Your task to perform on an android device: open a bookmark in the chrome app Image 0: 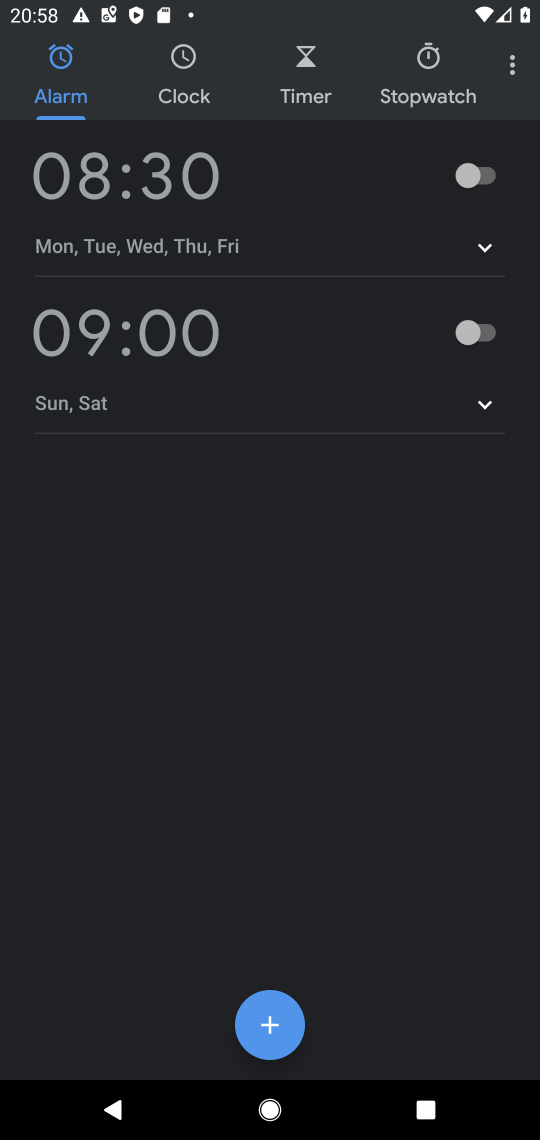
Step 0: press home button
Your task to perform on an android device: open a bookmark in the chrome app Image 1: 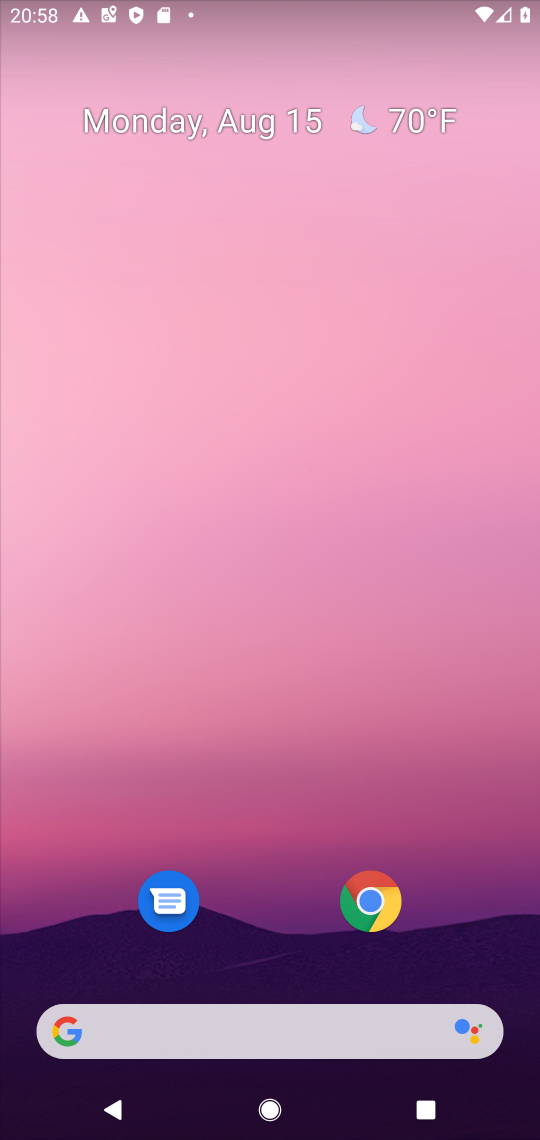
Step 1: drag from (278, 959) to (405, 93)
Your task to perform on an android device: open a bookmark in the chrome app Image 2: 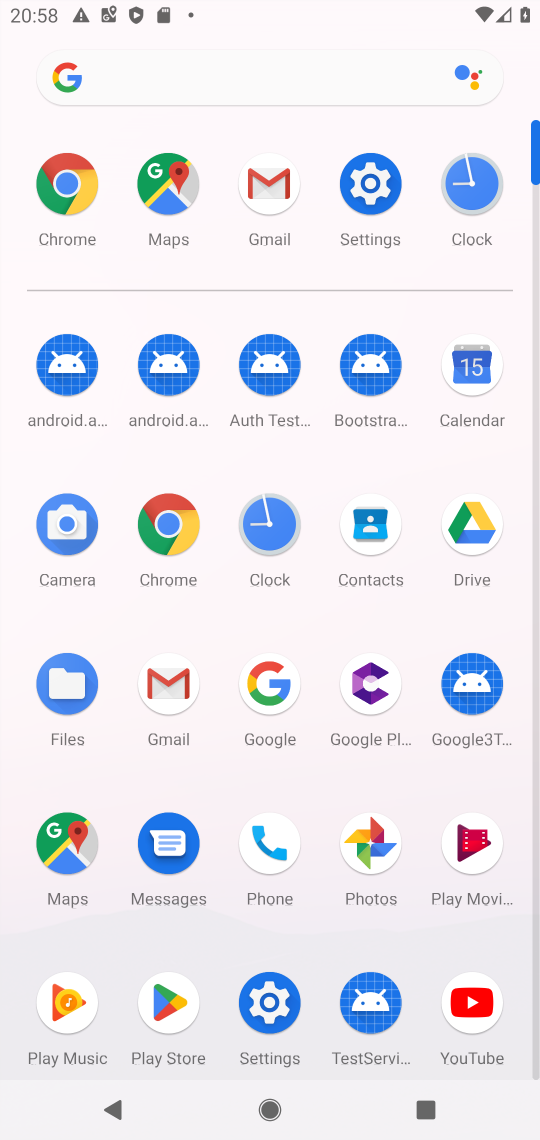
Step 2: click (164, 533)
Your task to perform on an android device: open a bookmark in the chrome app Image 3: 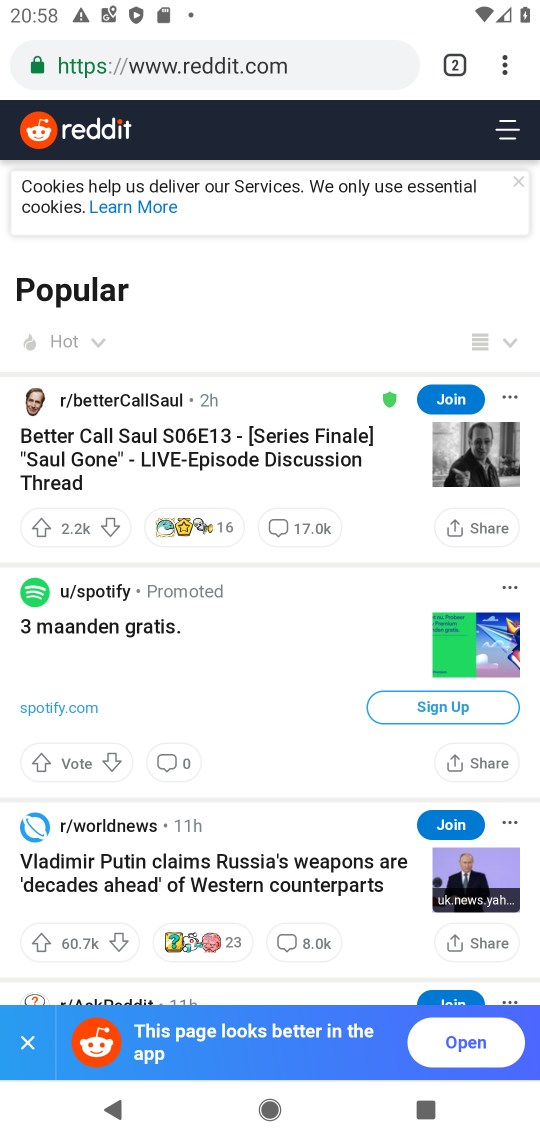
Step 3: click (506, 49)
Your task to perform on an android device: open a bookmark in the chrome app Image 4: 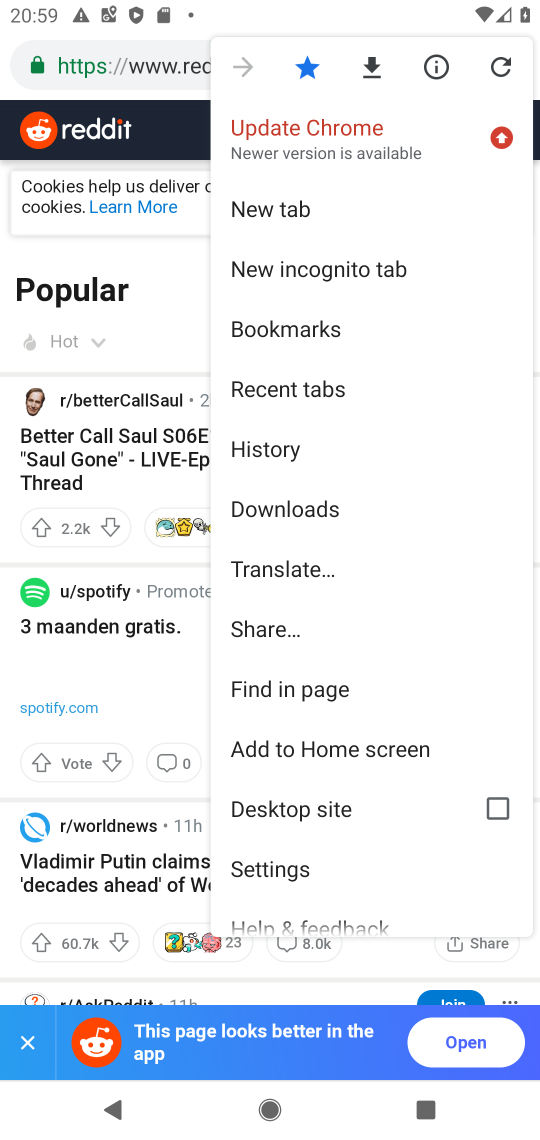
Step 4: click (281, 325)
Your task to perform on an android device: open a bookmark in the chrome app Image 5: 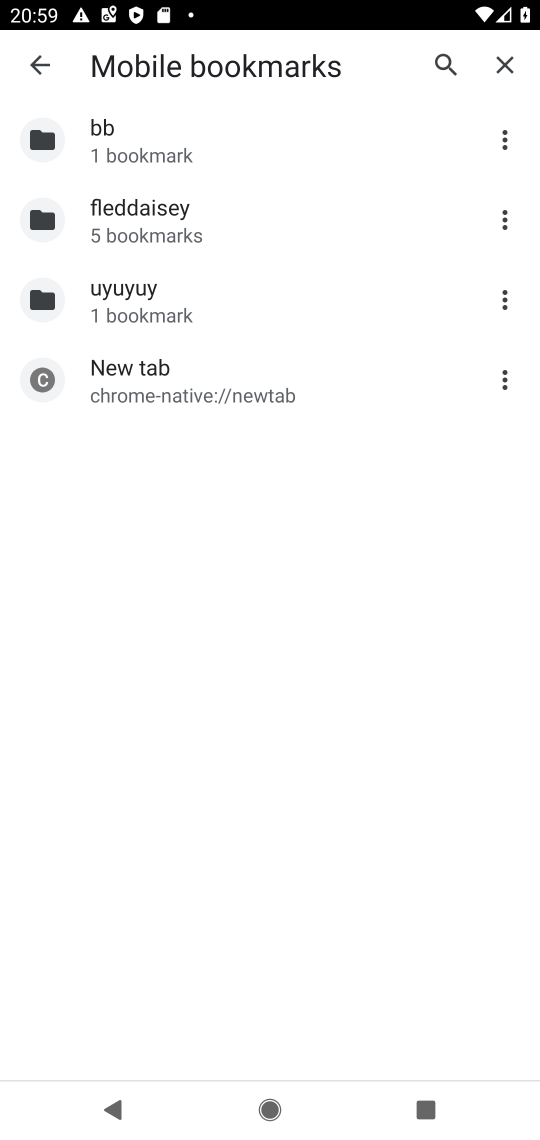
Step 5: click (156, 221)
Your task to perform on an android device: open a bookmark in the chrome app Image 6: 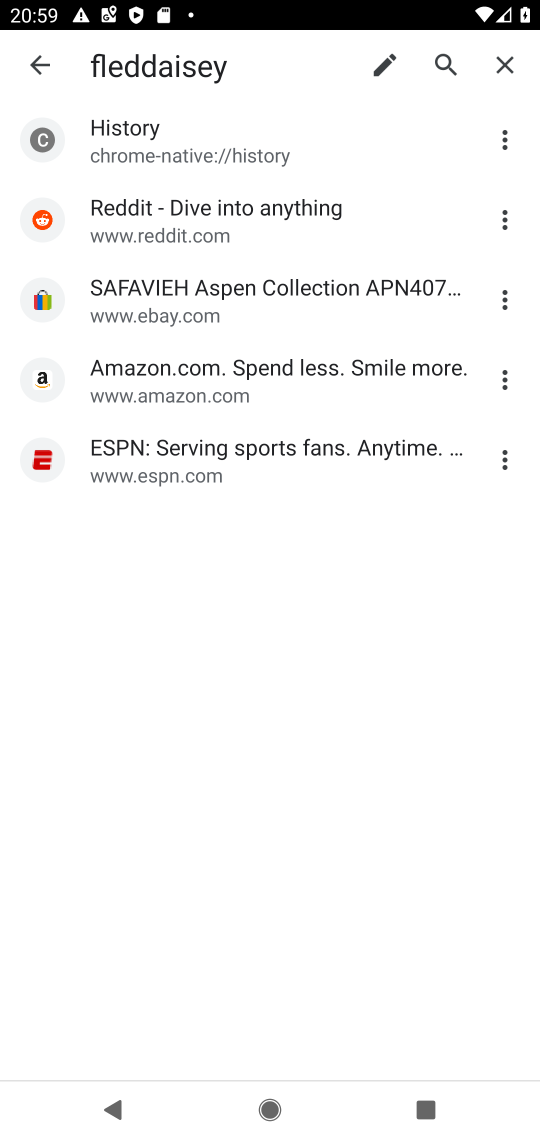
Step 6: click (216, 218)
Your task to perform on an android device: open a bookmark in the chrome app Image 7: 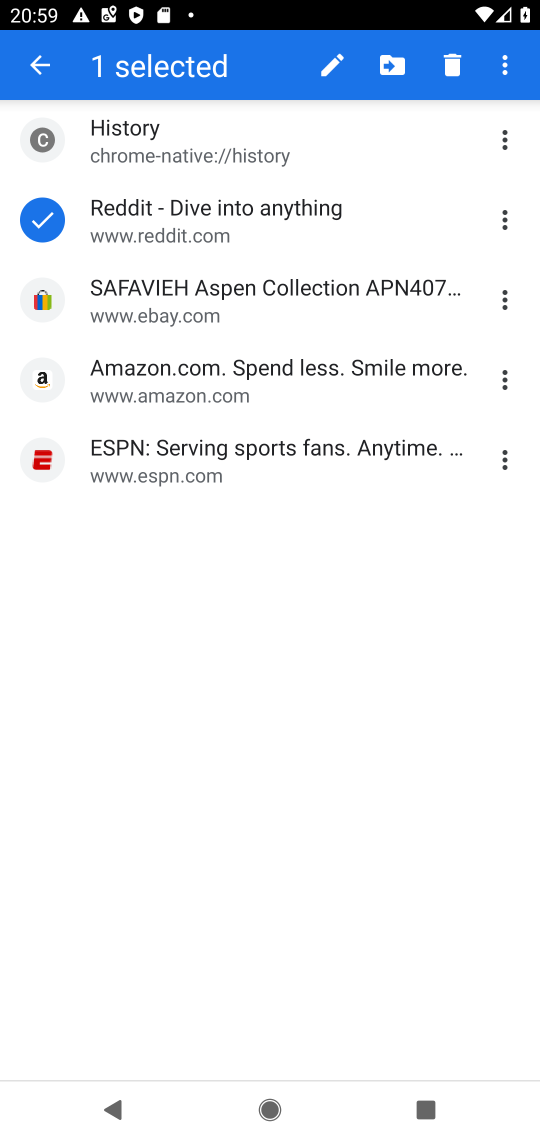
Step 7: click (213, 291)
Your task to perform on an android device: open a bookmark in the chrome app Image 8: 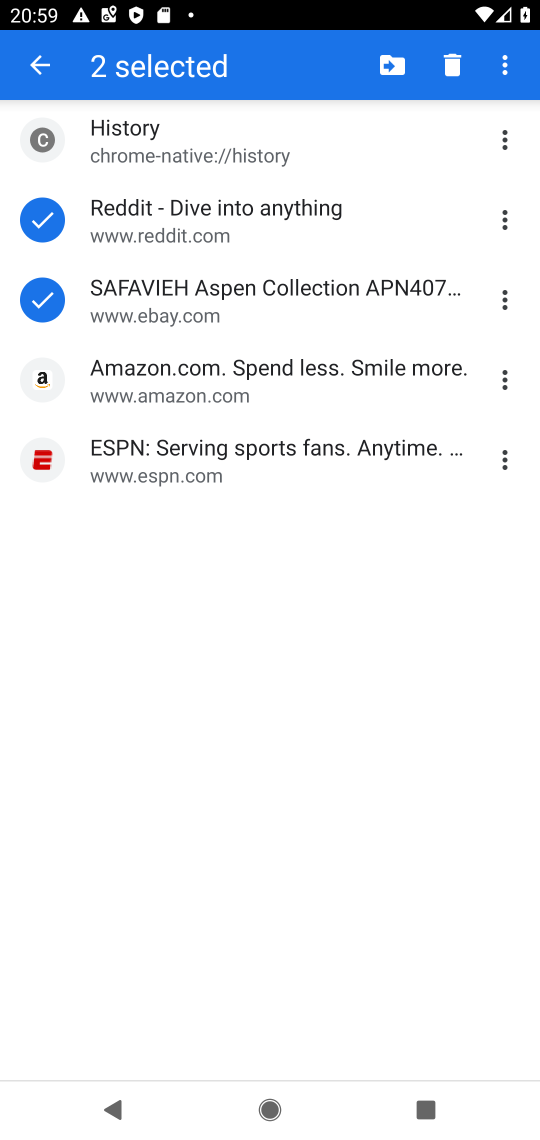
Step 8: click (149, 225)
Your task to perform on an android device: open a bookmark in the chrome app Image 9: 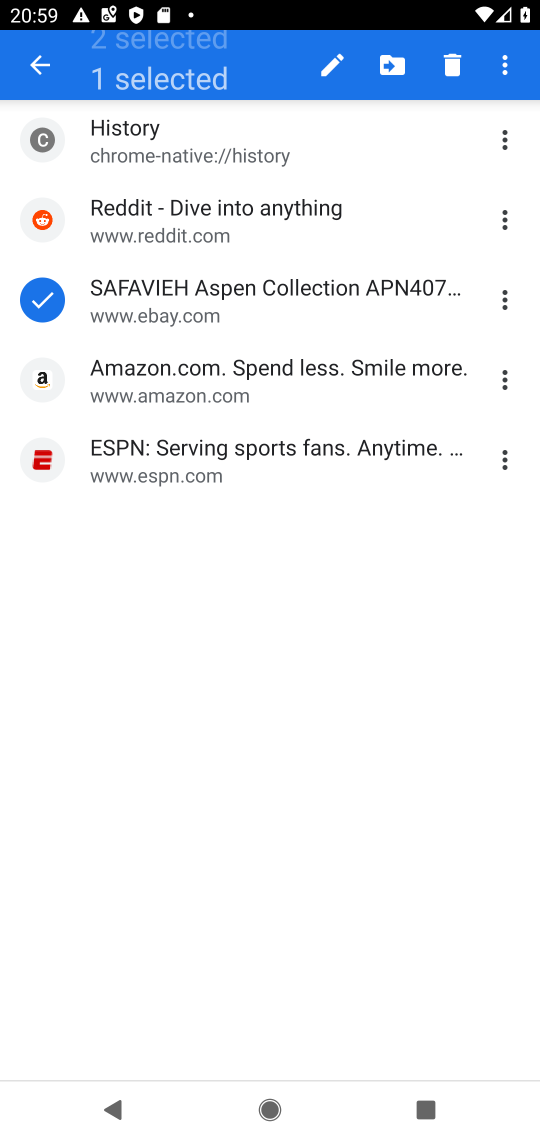
Step 9: click (56, 61)
Your task to perform on an android device: open a bookmark in the chrome app Image 10: 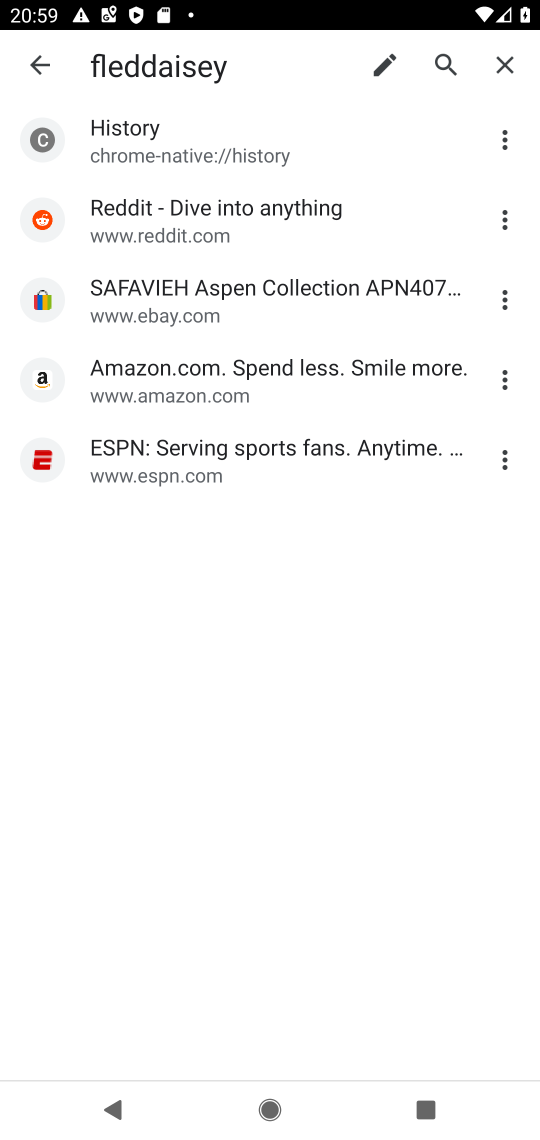
Step 10: click (162, 224)
Your task to perform on an android device: open a bookmark in the chrome app Image 11: 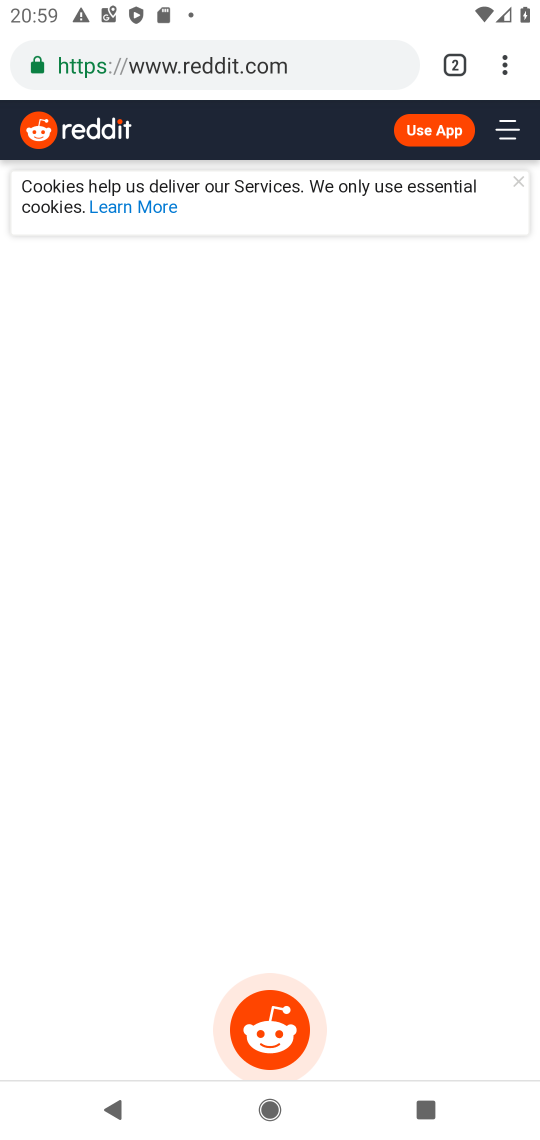
Step 11: task complete